Your task to perform on an android device: turn off notifications settings in the gmail app Image 0: 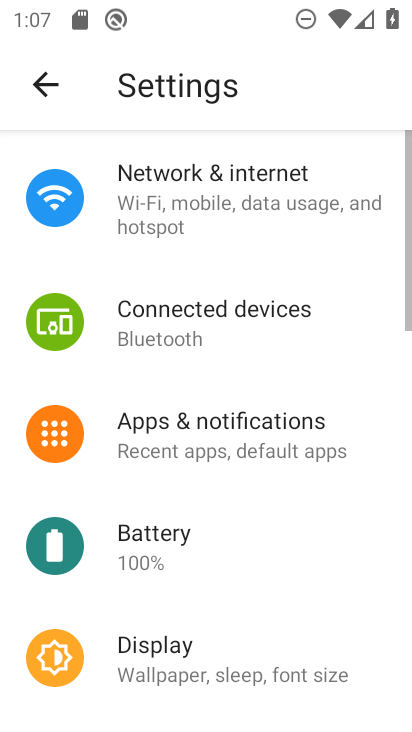
Step 0: press home button
Your task to perform on an android device: turn off notifications settings in the gmail app Image 1: 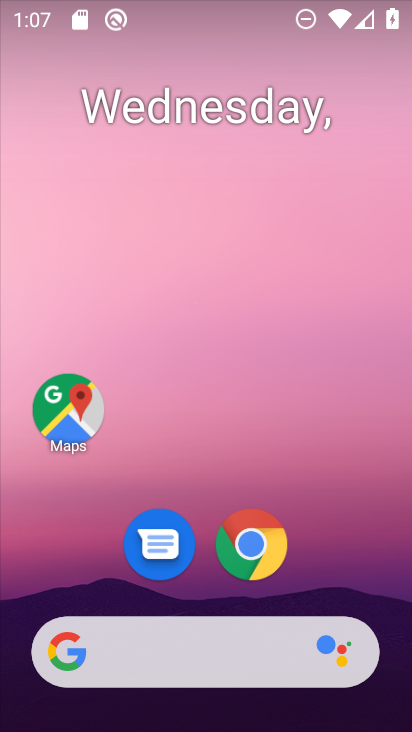
Step 1: drag from (316, 564) to (304, 197)
Your task to perform on an android device: turn off notifications settings in the gmail app Image 2: 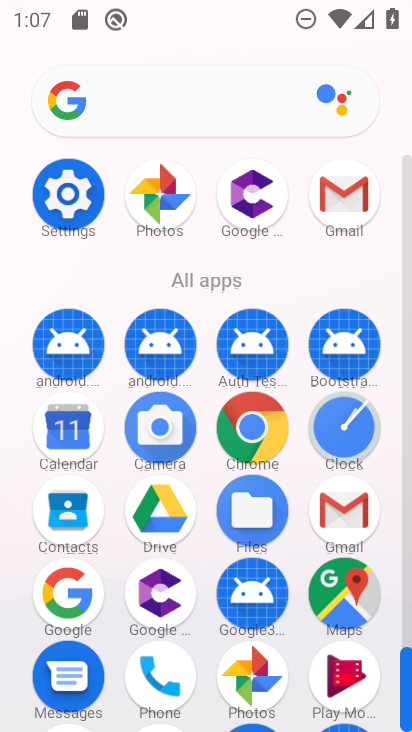
Step 2: click (334, 497)
Your task to perform on an android device: turn off notifications settings in the gmail app Image 3: 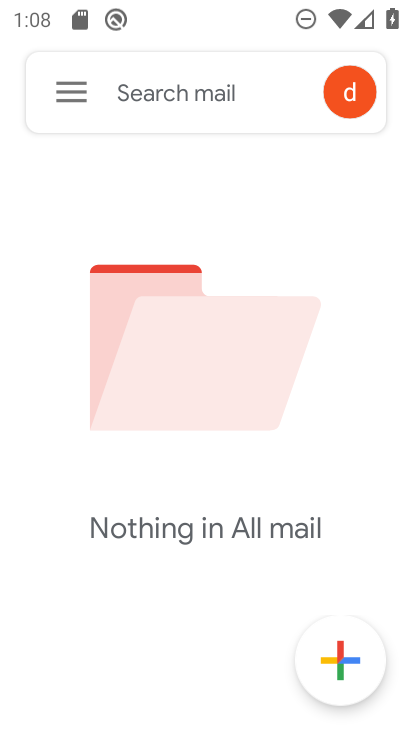
Step 3: click (65, 86)
Your task to perform on an android device: turn off notifications settings in the gmail app Image 4: 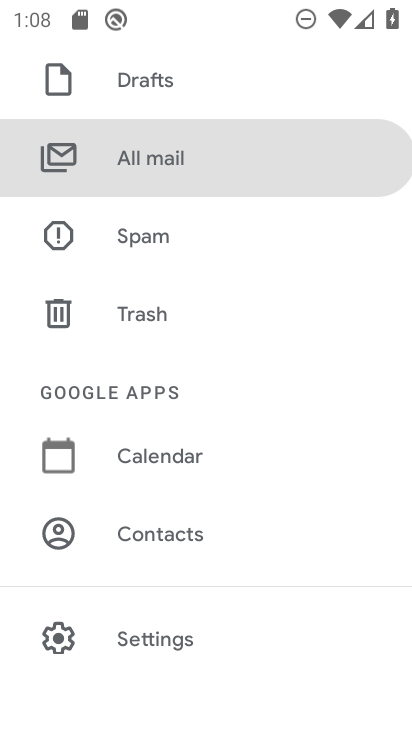
Step 4: click (125, 631)
Your task to perform on an android device: turn off notifications settings in the gmail app Image 5: 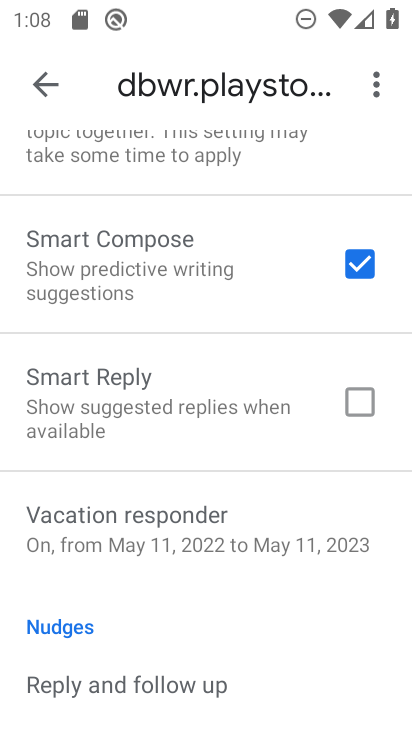
Step 5: drag from (167, 360) to (282, 538)
Your task to perform on an android device: turn off notifications settings in the gmail app Image 6: 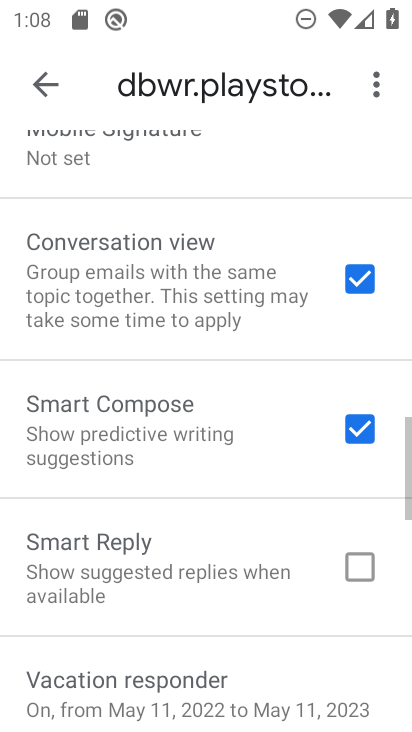
Step 6: drag from (227, 337) to (262, 456)
Your task to perform on an android device: turn off notifications settings in the gmail app Image 7: 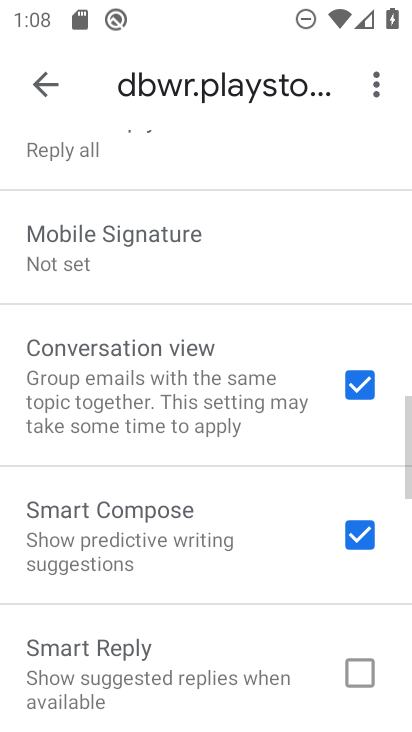
Step 7: drag from (234, 314) to (197, 570)
Your task to perform on an android device: turn off notifications settings in the gmail app Image 8: 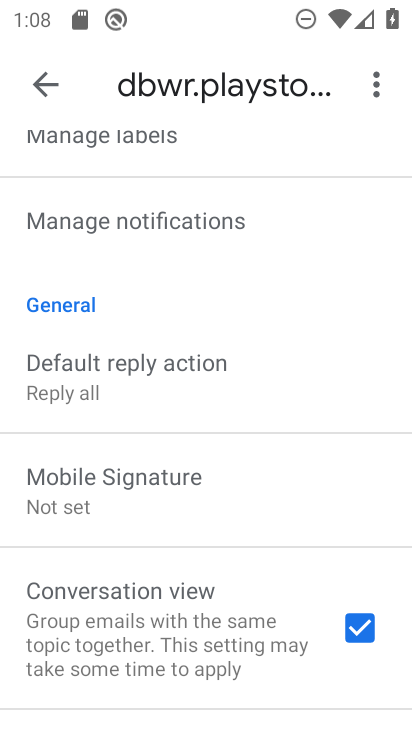
Step 8: drag from (147, 269) to (179, 506)
Your task to perform on an android device: turn off notifications settings in the gmail app Image 9: 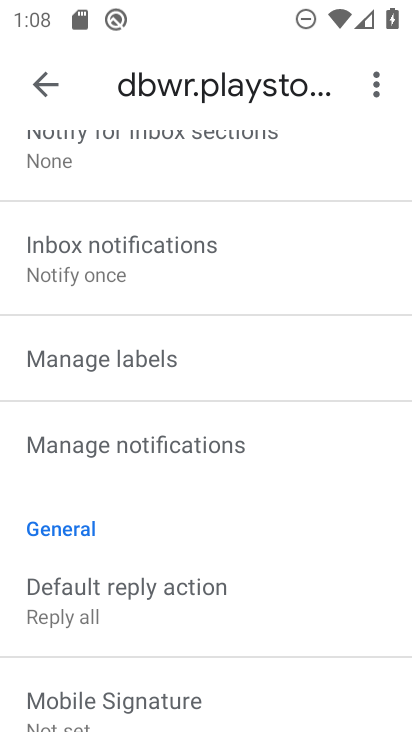
Step 9: click (131, 444)
Your task to perform on an android device: turn off notifications settings in the gmail app Image 10: 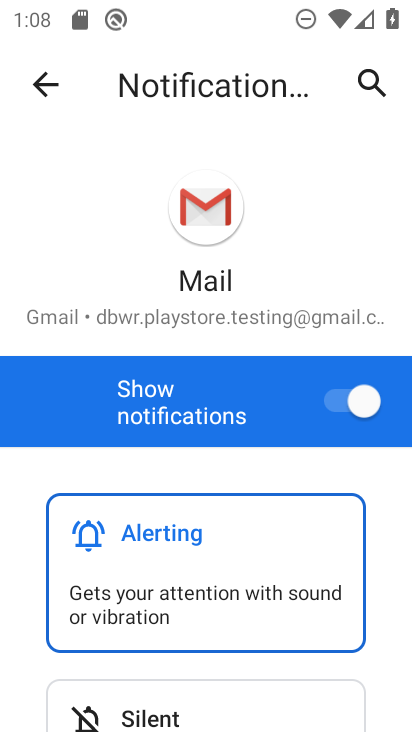
Step 10: click (338, 399)
Your task to perform on an android device: turn off notifications settings in the gmail app Image 11: 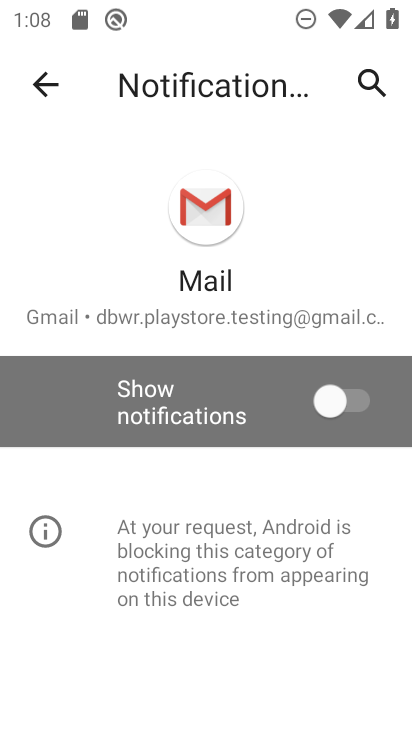
Step 11: task complete